Your task to perform on an android device: open app "AliExpress" (install if not already installed) Image 0: 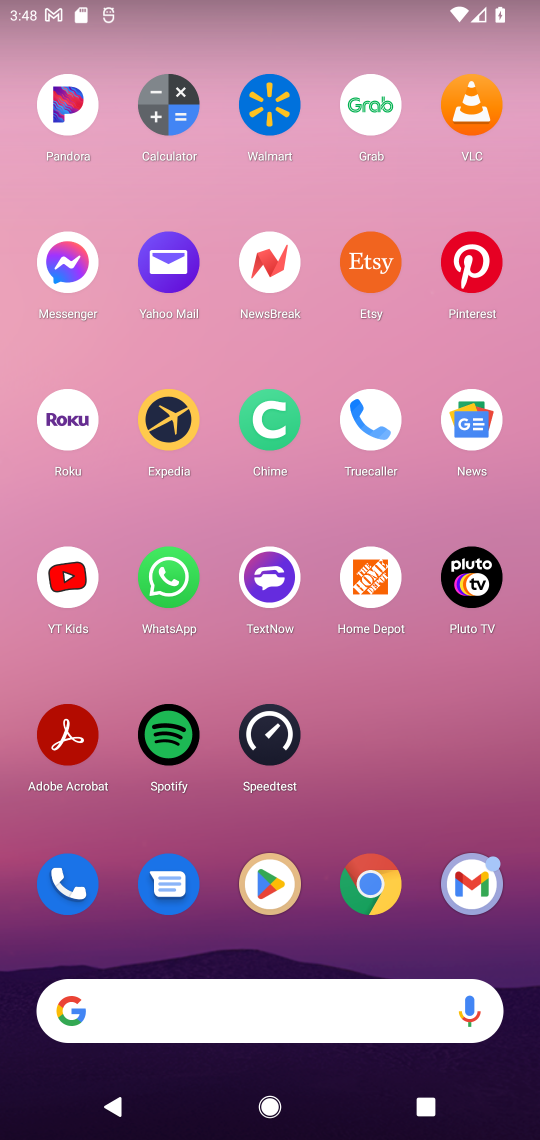
Step 0: click (269, 890)
Your task to perform on an android device: open app "AliExpress" (install if not already installed) Image 1: 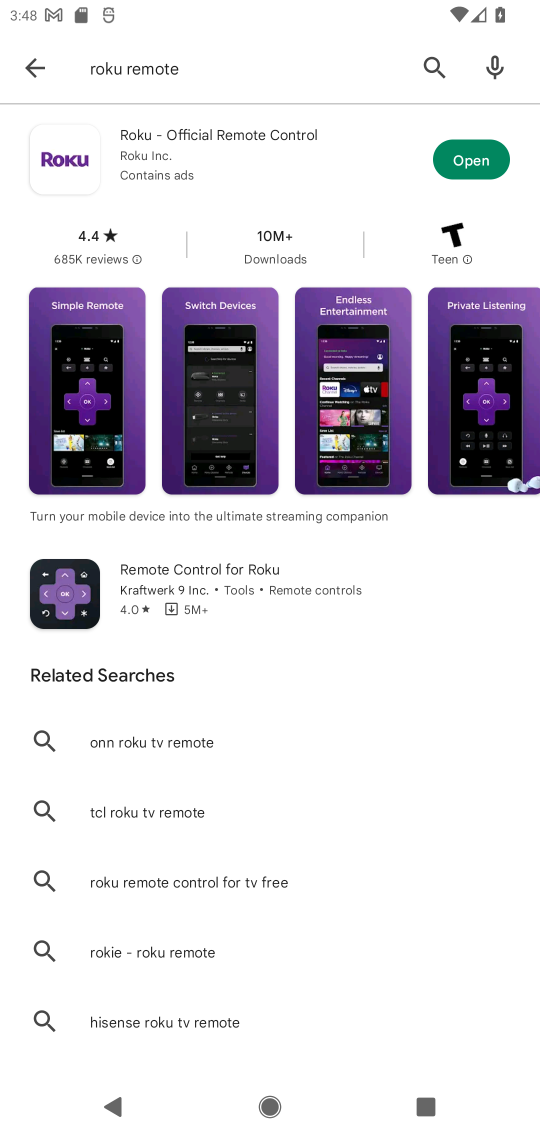
Step 1: click (160, 81)
Your task to perform on an android device: open app "AliExpress" (install if not already installed) Image 2: 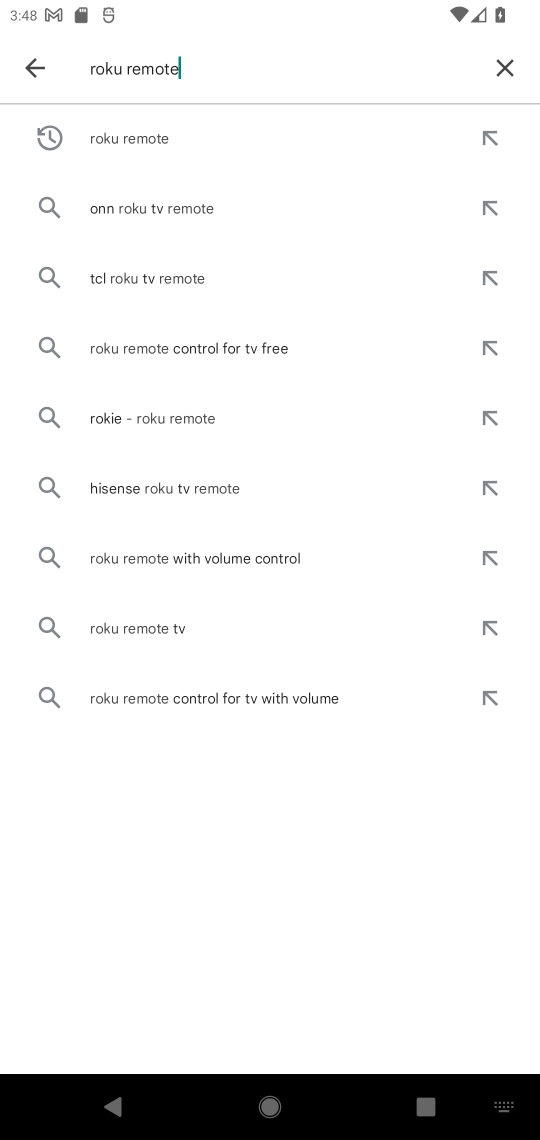
Step 2: click (511, 71)
Your task to perform on an android device: open app "AliExpress" (install if not already installed) Image 3: 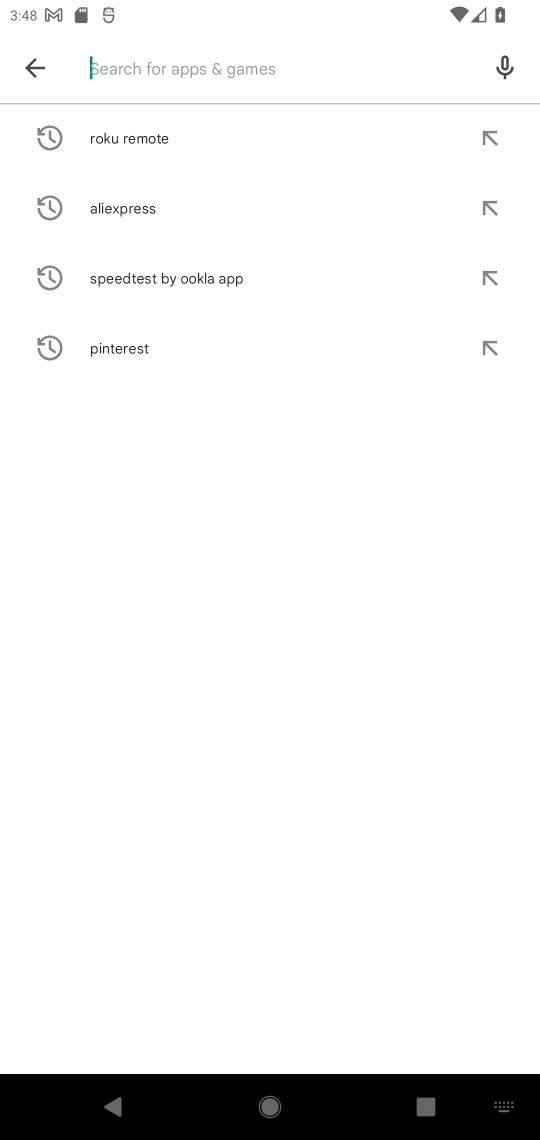
Step 3: type "AliExpress"
Your task to perform on an android device: open app "AliExpress" (install if not already installed) Image 4: 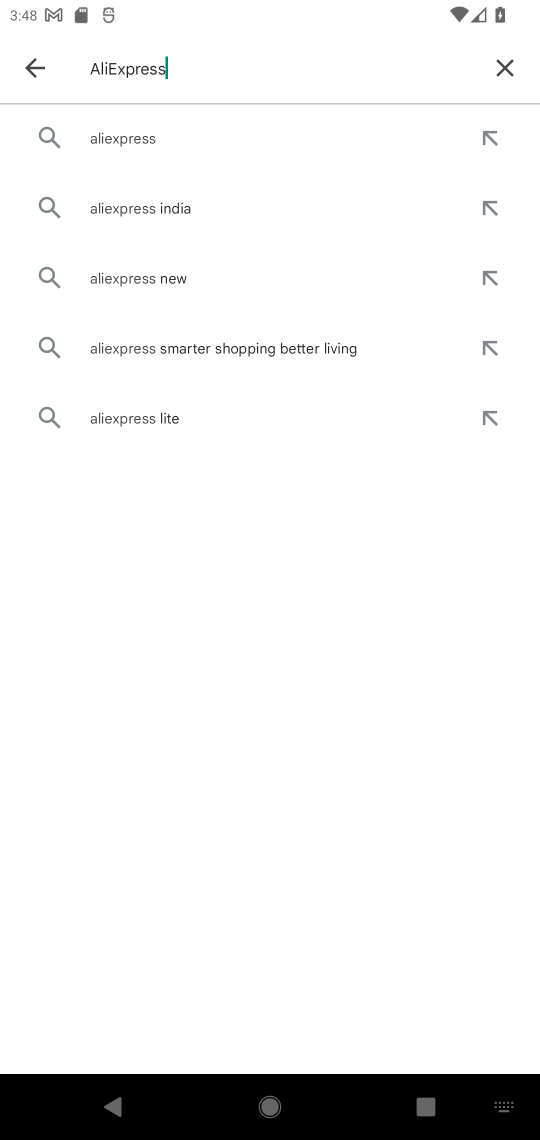
Step 4: click (176, 151)
Your task to perform on an android device: open app "AliExpress" (install if not already installed) Image 5: 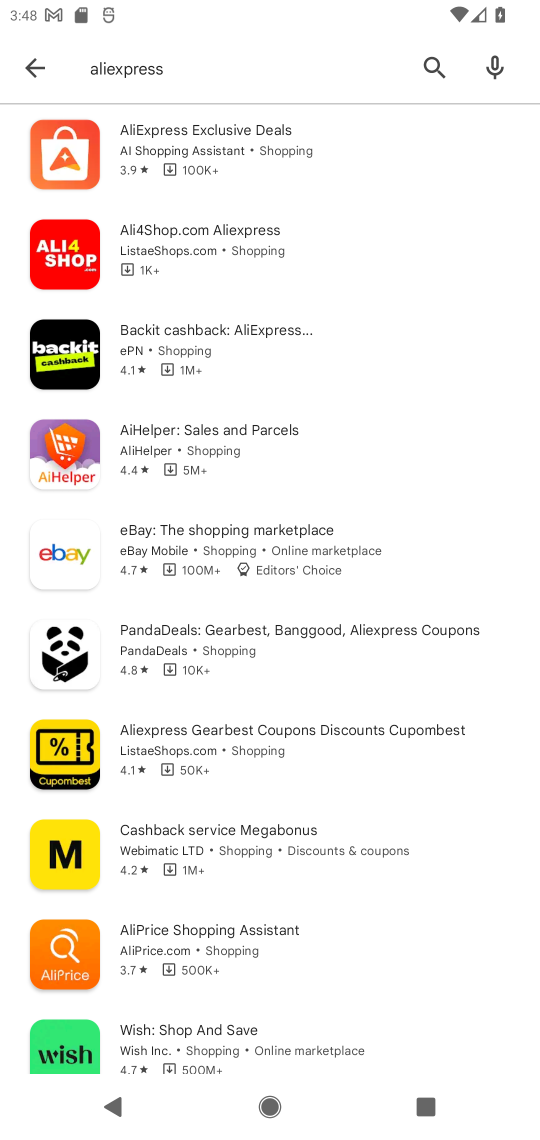
Step 5: click (196, 152)
Your task to perform on an android device: open app "AliExpress" (install if not already installed) Image 6: 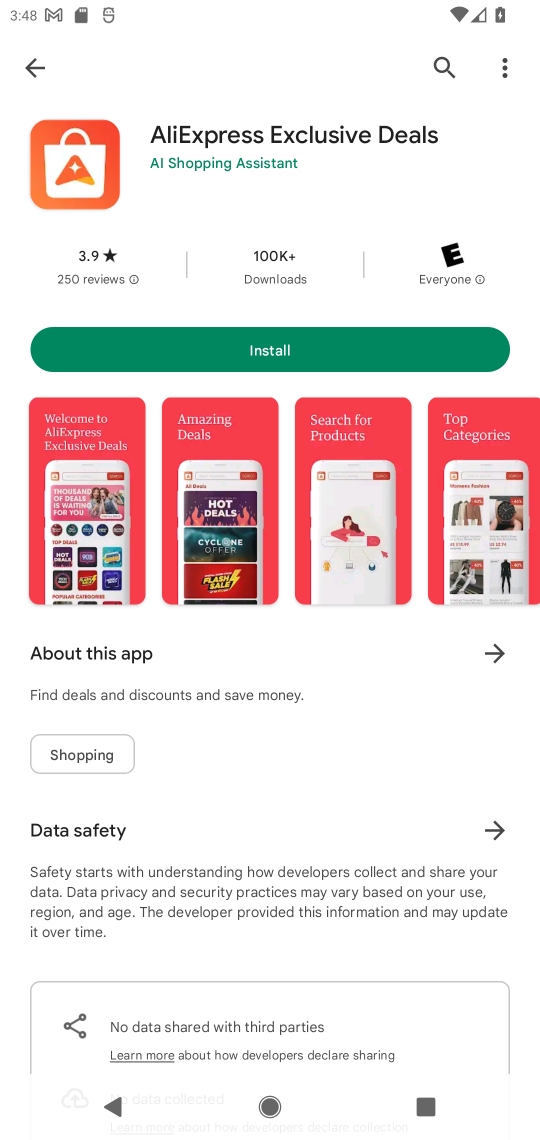
Step 6: click (335, 355)
Your task to perform on an android device: open app "AliExpress" (install if not already installed) Image 7: 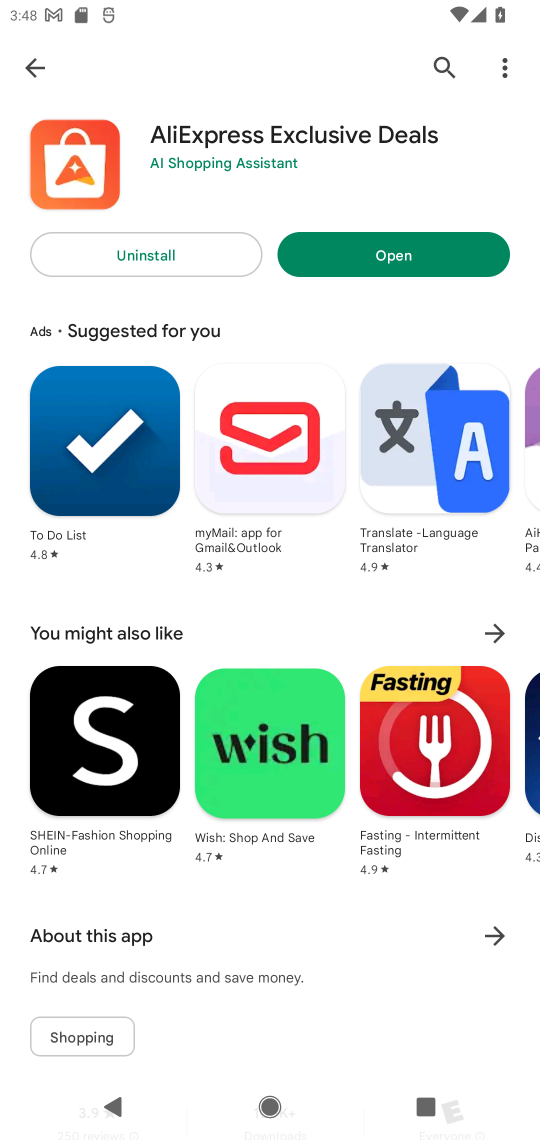
Step 7: click (428, 255)
Your task to perform on an android device: open app "AliExpress" (install if not already installed) Image 8: 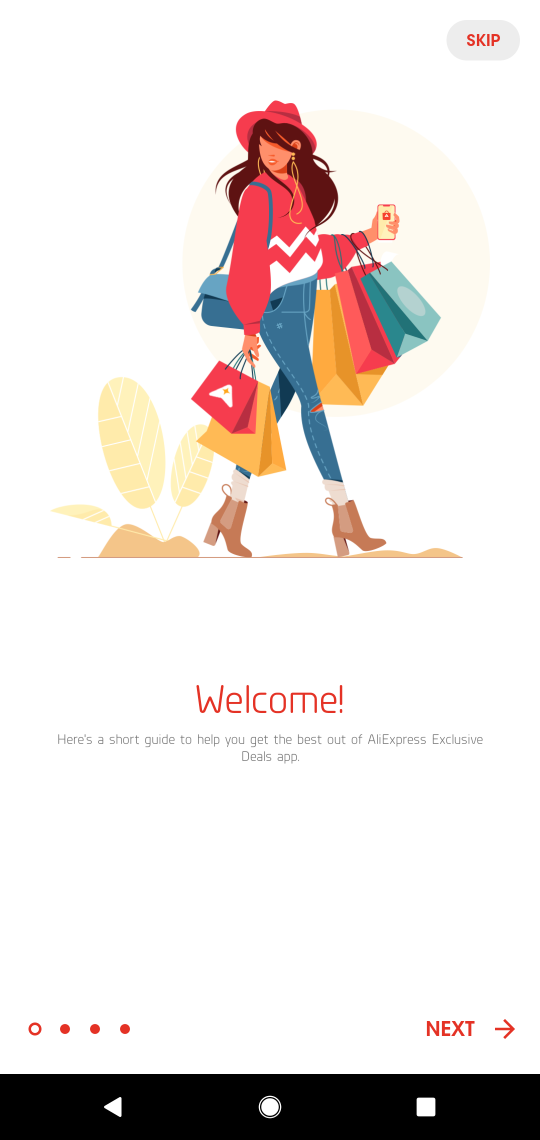
Step 8: click (490, 41)
Your task to perform on an android device: open app "AliExpress" (install if not already installed) Image 9: 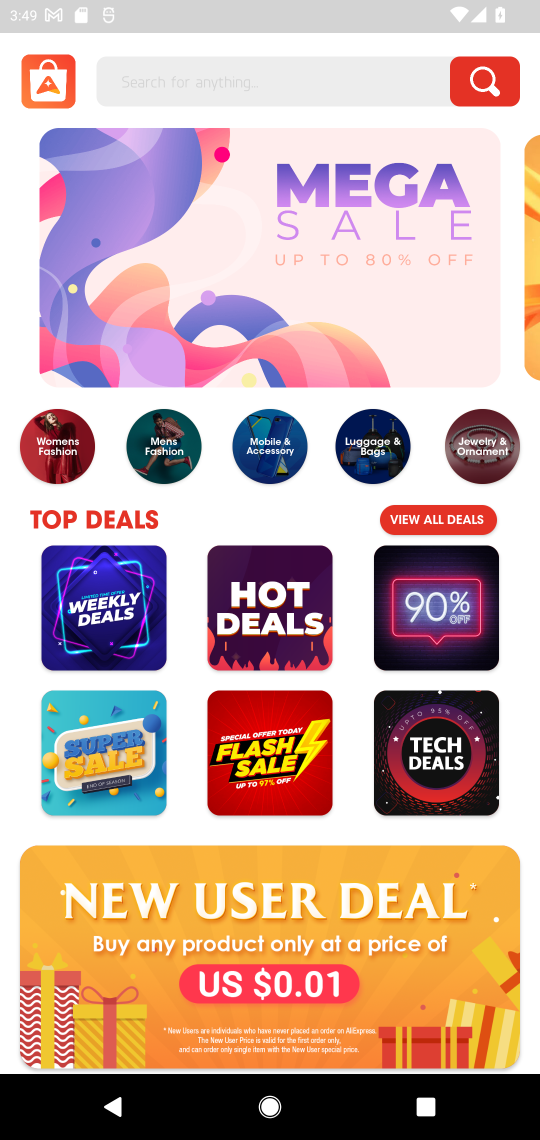
Step 9: task complete